Your task to perform on an android device: clear all cookies in the chrome app Image 0: 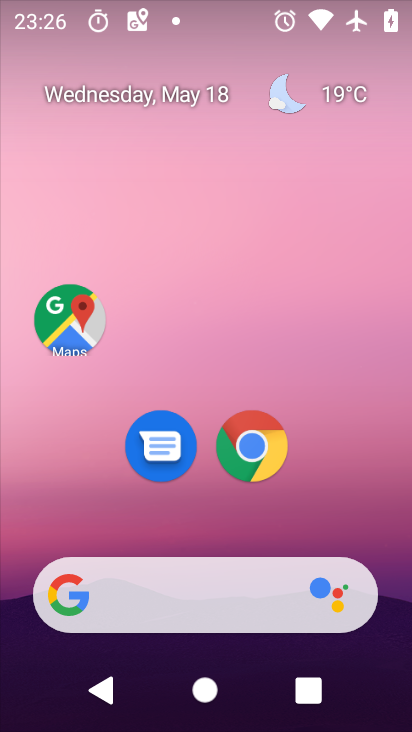
Step 0: press home button
Your task to perform on an android device: clear all cookies in the chrome app Image 1: 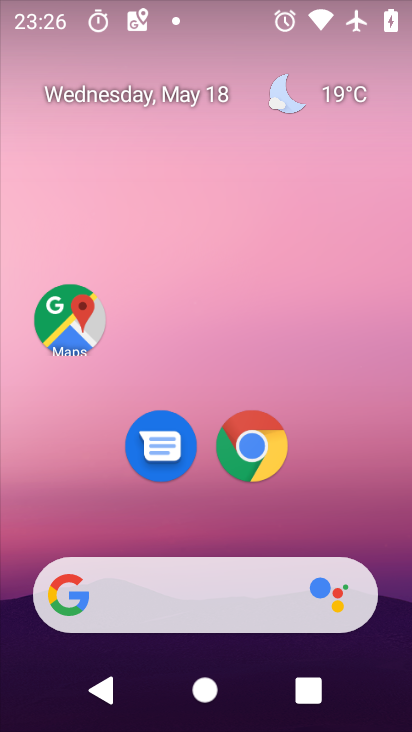
Step 1: click (251, 468)
Your task to perform on an android device: clear all cookies in the chrome app Image 2: 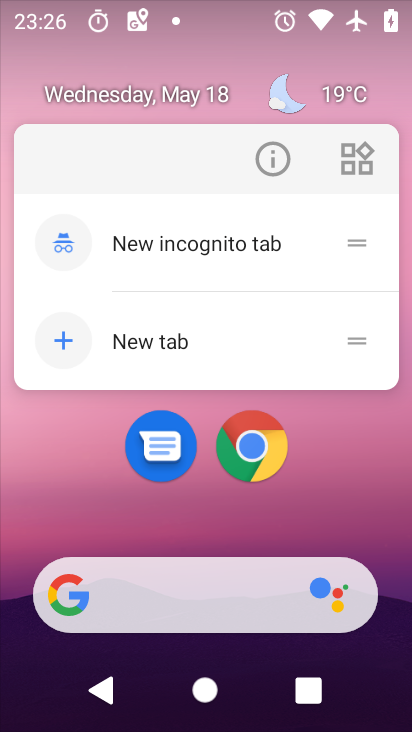
Step 2: click (258, 458)
Your task to perform on an android device: clear all cookies in the chrome app Image 3: 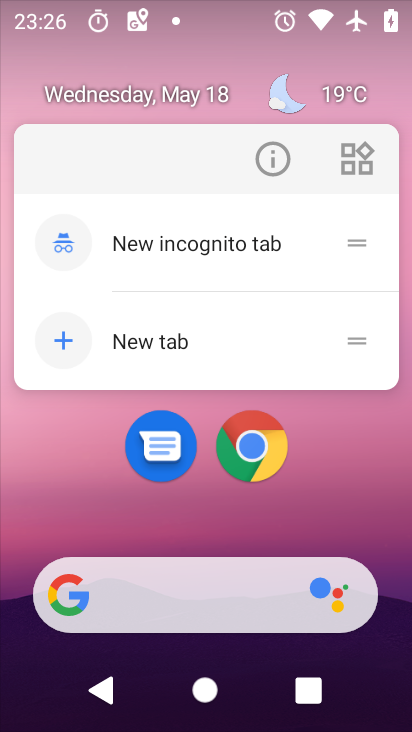
Step 3: click (250, 432)
Your task to perform on an android device: clear all cookies in the chrome app Image 4: 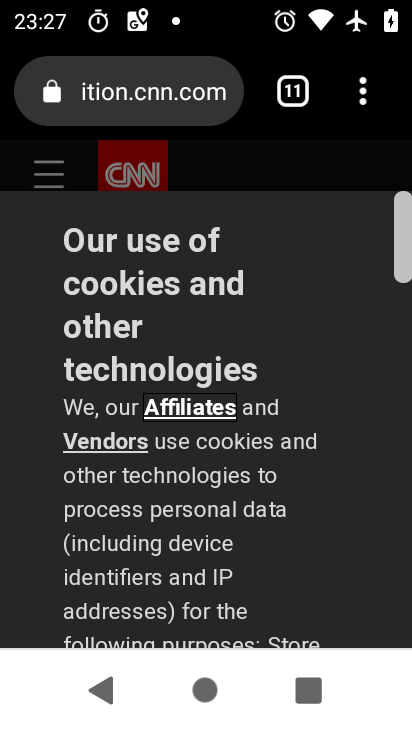
Step 4: drag from (364, 97) to (187, 466)
Your task to perform on an android device: clear all cookies in the chrome app Image 5: 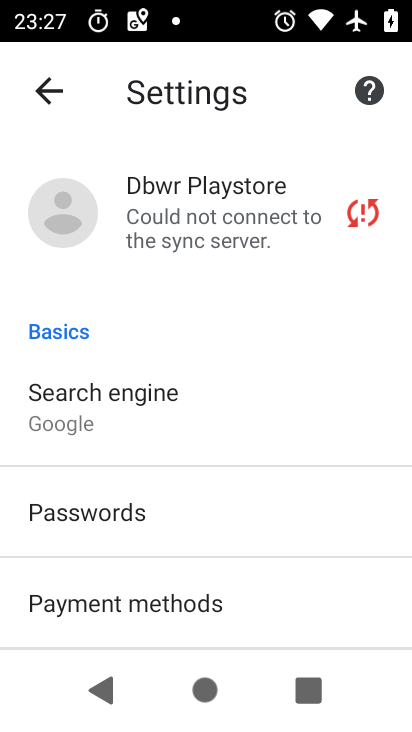
Step 5: drag from (202, 619) to (263, 329)
Your task to perform on an android device: clear all cookies in the chrome app Image 6: 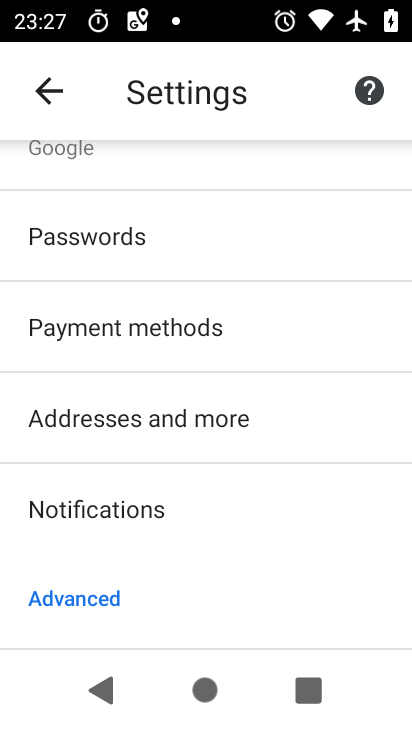
Step 6: drag from (161, 558) to (278, 230)
Your task to perform on an android device: clear all cookies in the chrome app Image 7: 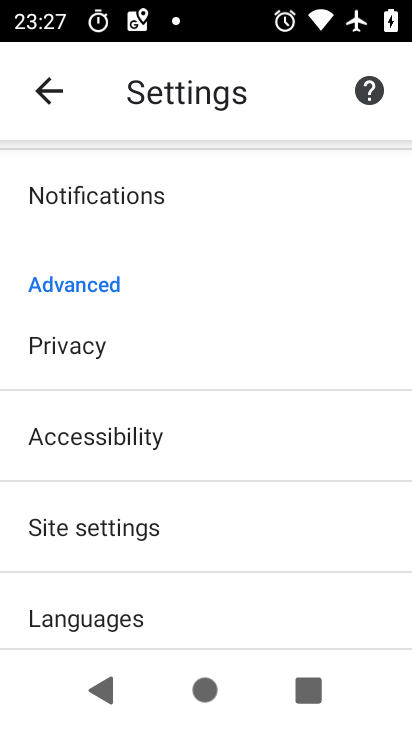
Step 7: click (70, 352)
Your task to perform on an android device: clear all cookies in the chrome app Image 8: 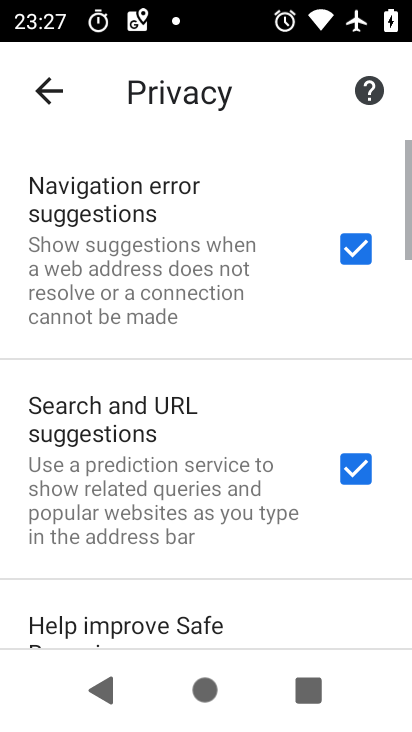
Step 8: drag from (228, 614) to (310, 185)
Your task to perform on an android device: clear all cookies in the chrome app Image 9: 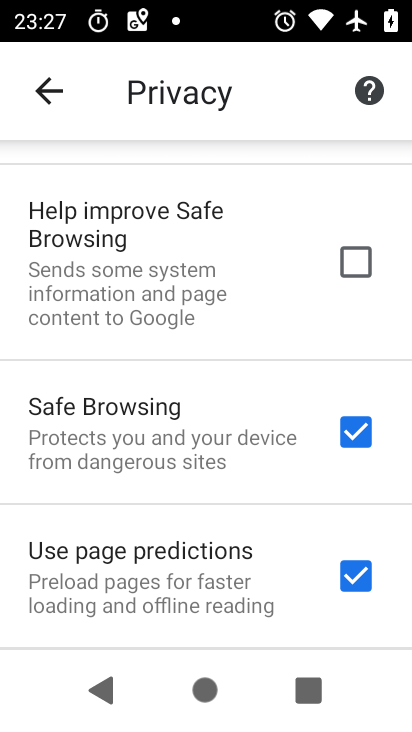
Step 9: drag from (215, 596) to (286, 248)
Your task to perform on an android device: clear all cookies in the chrome app Image 10: 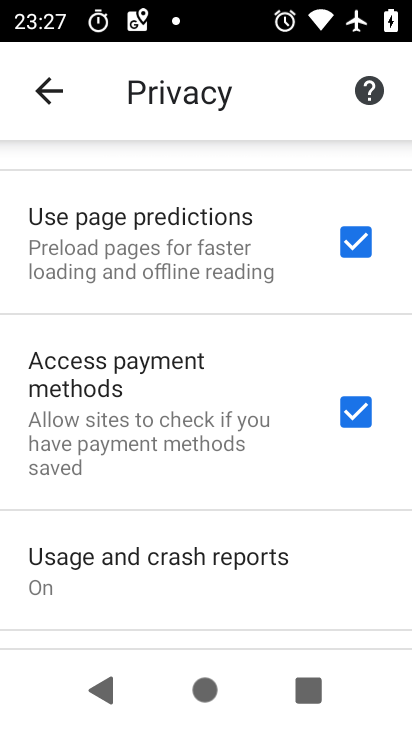
Step 10: drag from (193, 543) to (304, 110)
Your task to perform on an android device: clear all cookies in the chrome app Image 11: 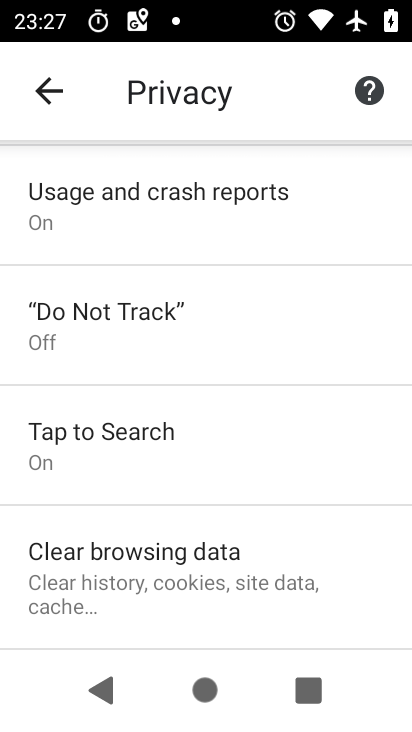
Step 11: click (162, 573)
Your task to perform on an android device: clear all cookies in the chrome app Image 12: 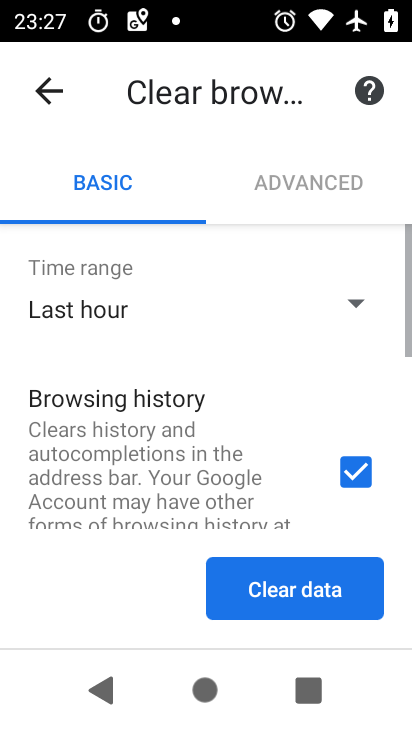
Step 12: drag from (187, 487) to (269, 312)
Your task to perform on an android device: clear all cookies in the chrome app Image 13: 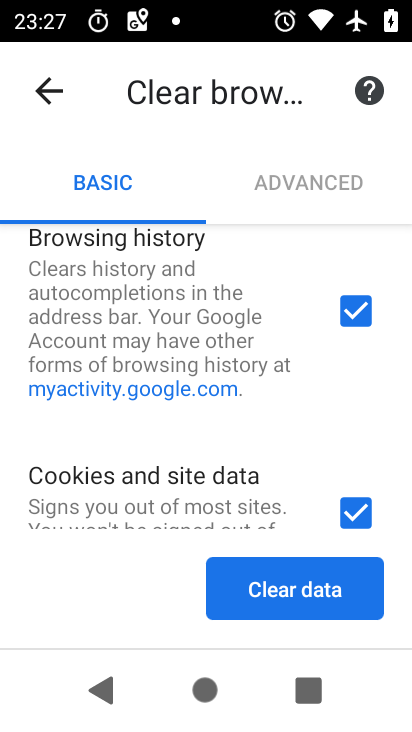
Step 13: click (347, 306)
Your task to perform on an android device: clear all cookies in the chrome app Image 14: 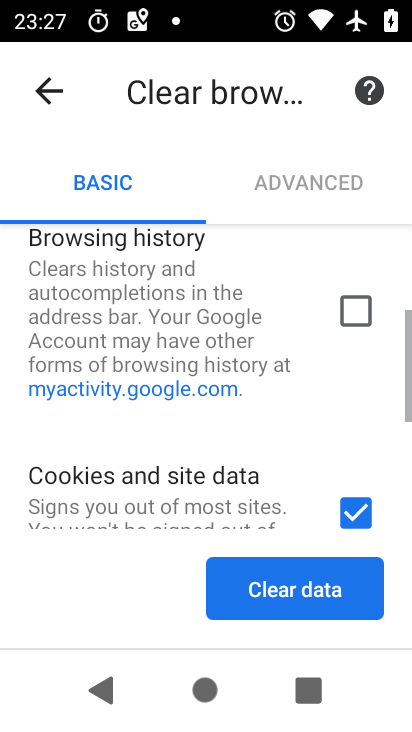
Step 14: drag from (195, 510) to (303, 206)
Your task to perform on an android device: clear all cookies in the chrome app Image 15: 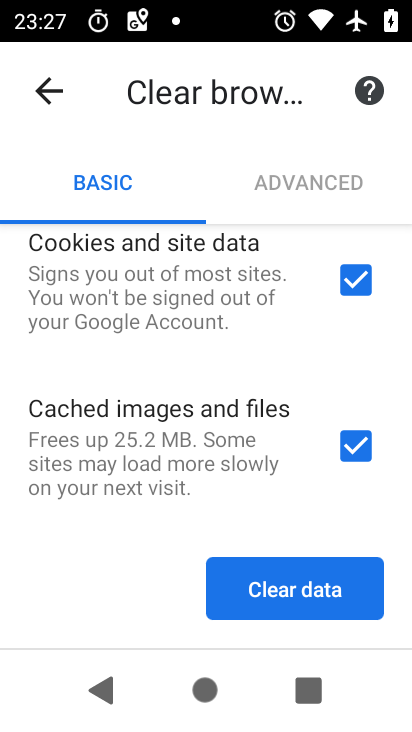
Step 15: click (351, 440)
Your task to perform on an android device: clear all cookies in the chrome app Image 16: 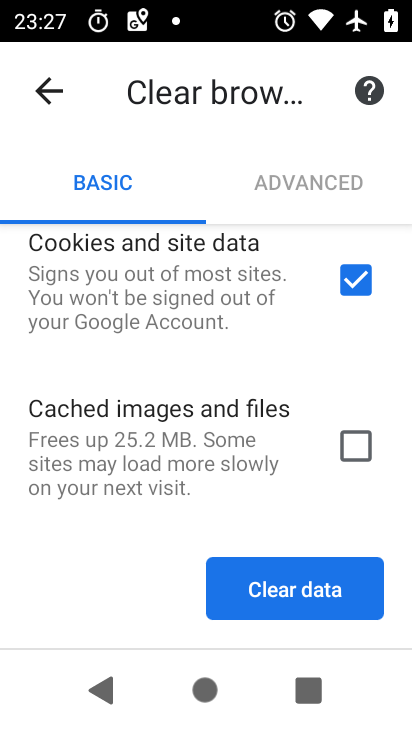
Step 16: click (301, 592)
Your task to perform on an android device: clear all cookies in the chrome app Image 17: 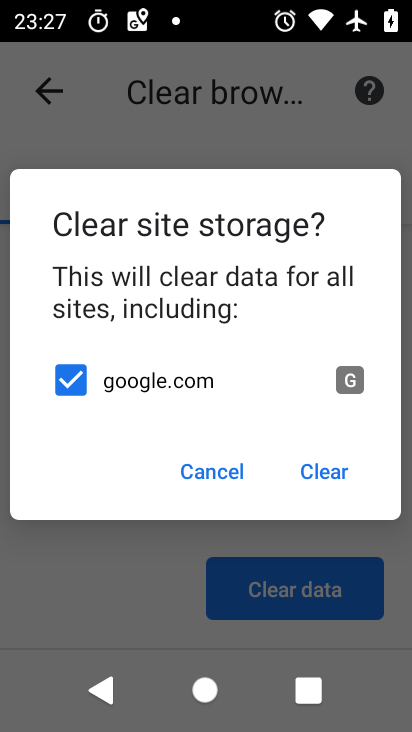
Step 17: click (328, 464)
Your task to perform on an android device: clear all cookies in the chrome app Image 18: 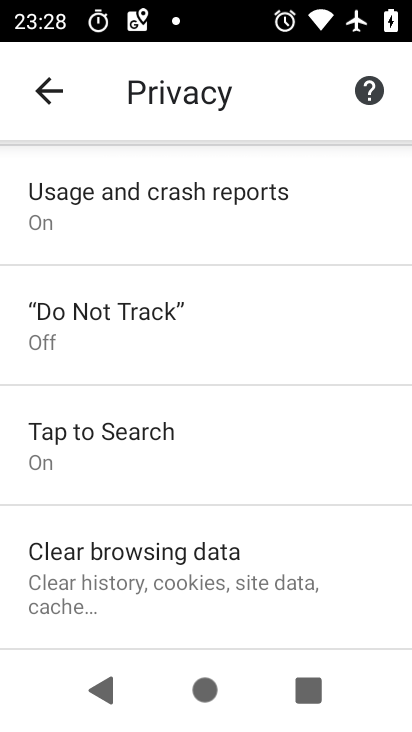
Step 18: task complete